Your task to perform on an android device: snooze an email in the gmail app Image 0: 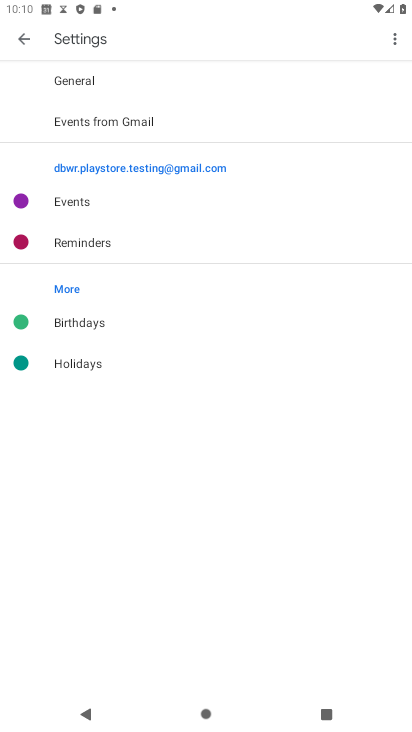
Step 0: press home button
Your task to perform on an android device: snooze an email in the gmail app Image 1: 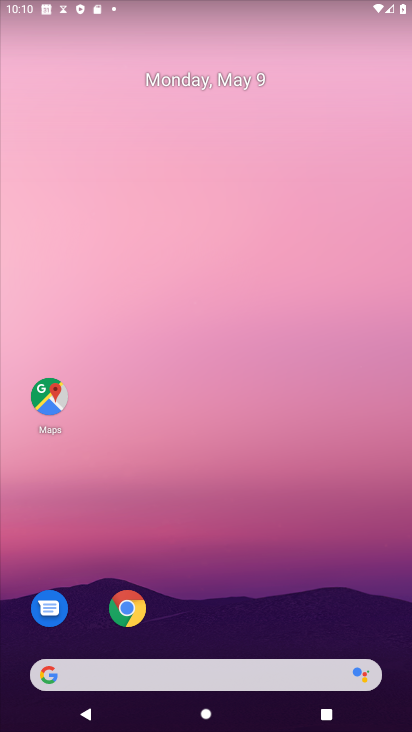
Step 1: drag from (236, 555) to (250, 190)
Your task to perform on an android device: snooze an email in the gmail app Image 2: 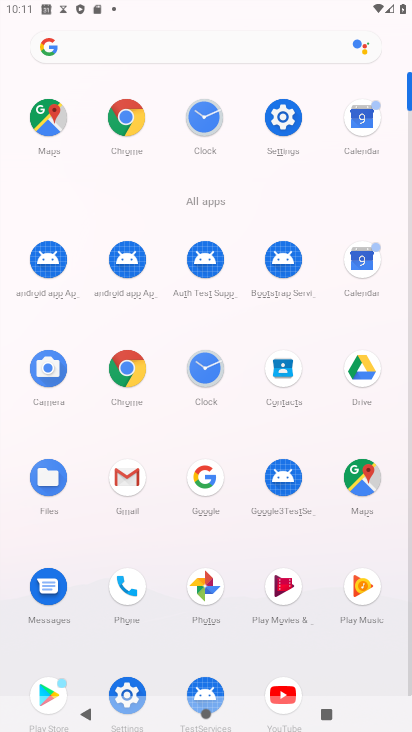
Step 2: click (125, 486)
Your task to perform on an android device: snooze an email in the gmail app Image 3: 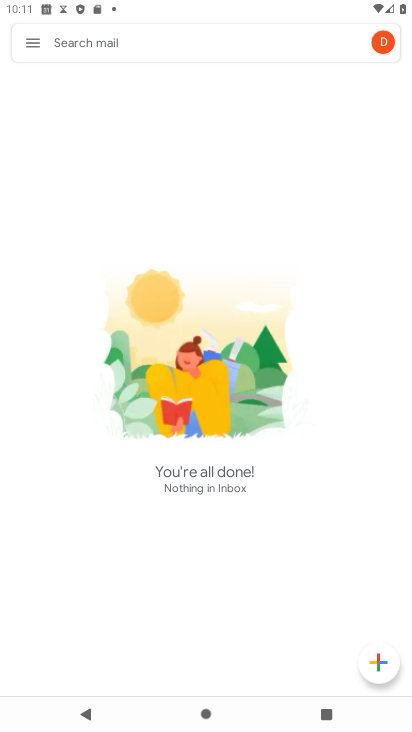
Step 3: click (29, 48)
Your task to perform on an android device: snooze an email in the gmail app Image 4: 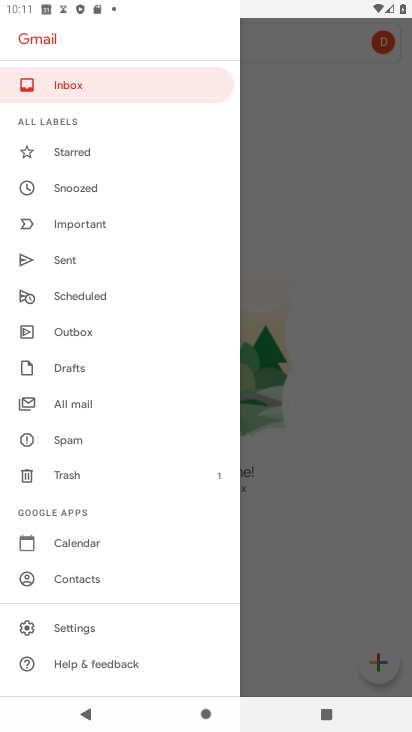
Step 4: task complete